Your task to perform on an android device: turn on the 24-hour format for clock Image 0: 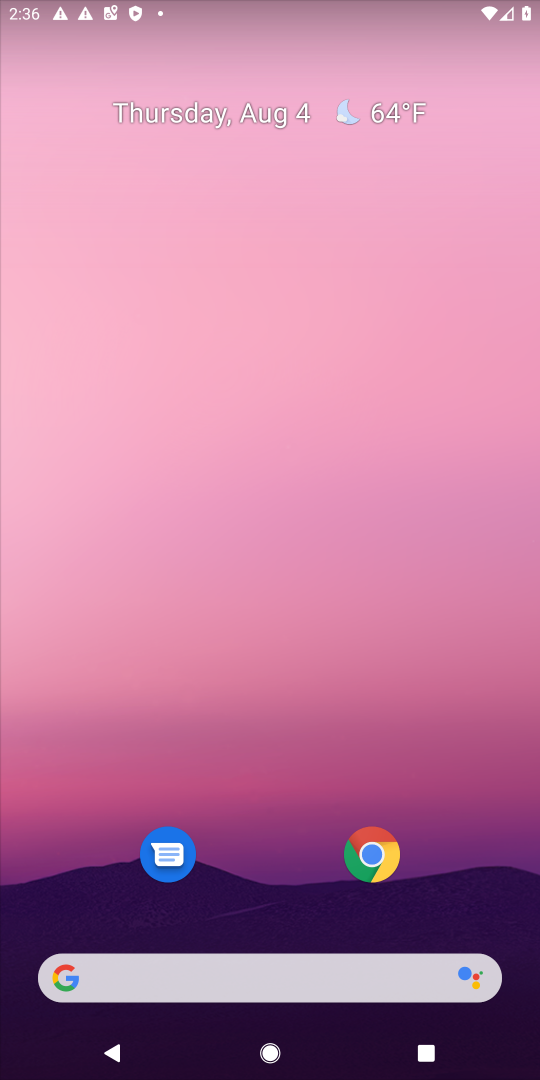
Step 0: drag from (245, 930) to (220, 407)
Your task to perform on an android device: turn on the 24-hour format for clock Image 1: 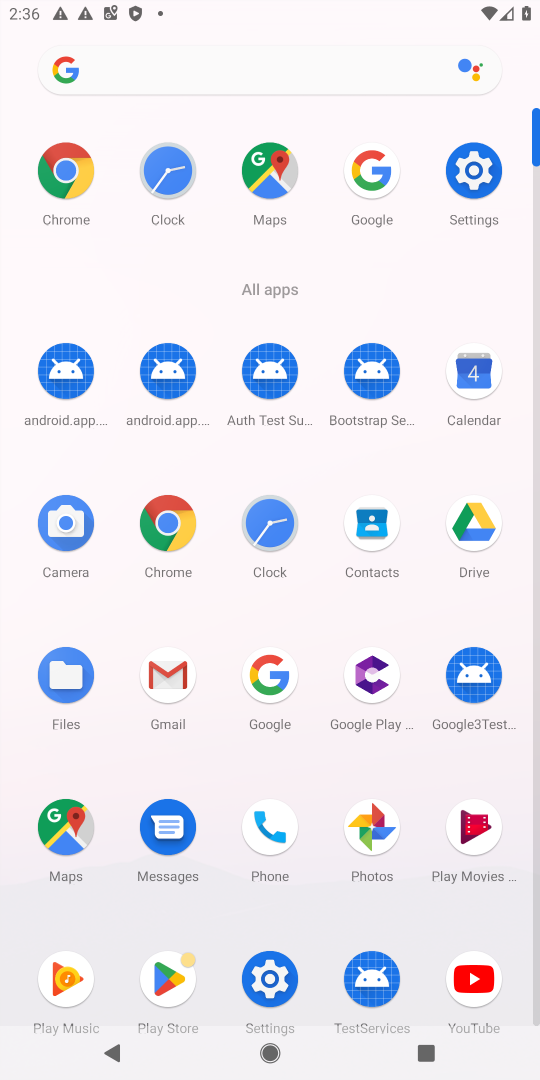
Step 1: click (260, 527)
Your task to perform on an android device: turn on the 24-hour format for clock Image 2: 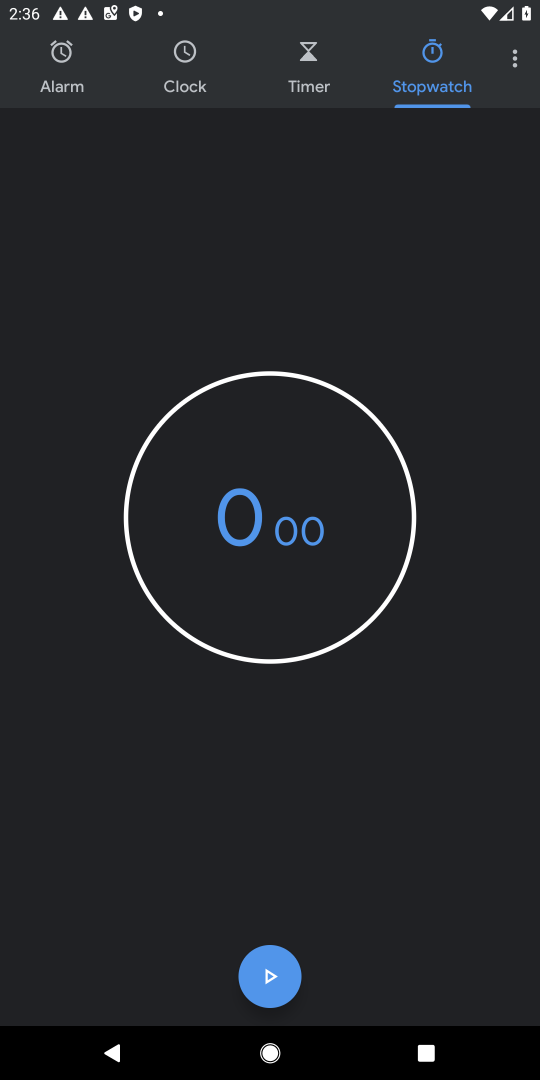
Step 2: click (516, 79)
Your task to perform on an android device: turn on the 24-hour format for clock Image 3: 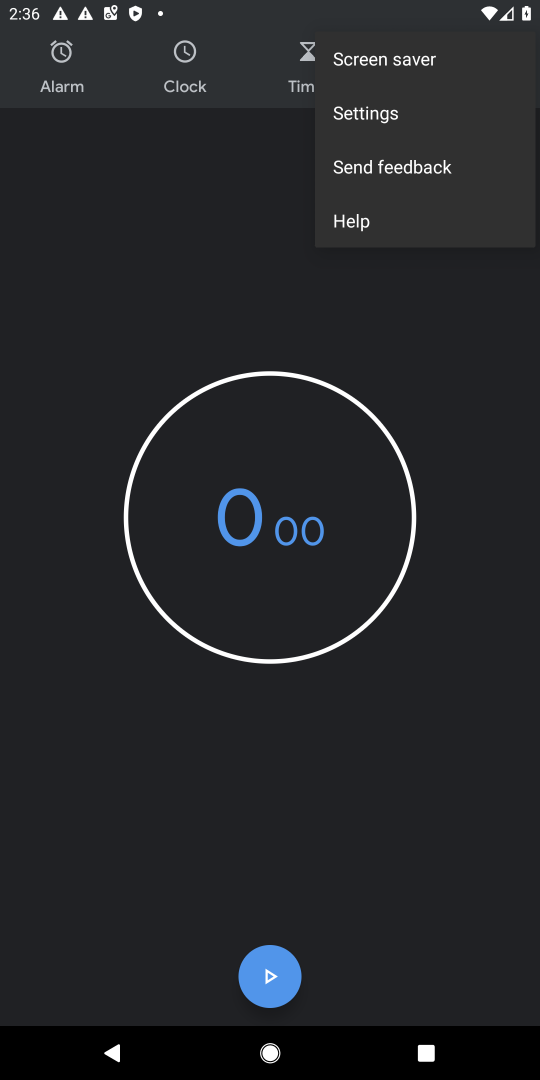
Step 3: click (342, 116)
Your task to perform on an android device: turn on the 24-hour format for clock Image 4: 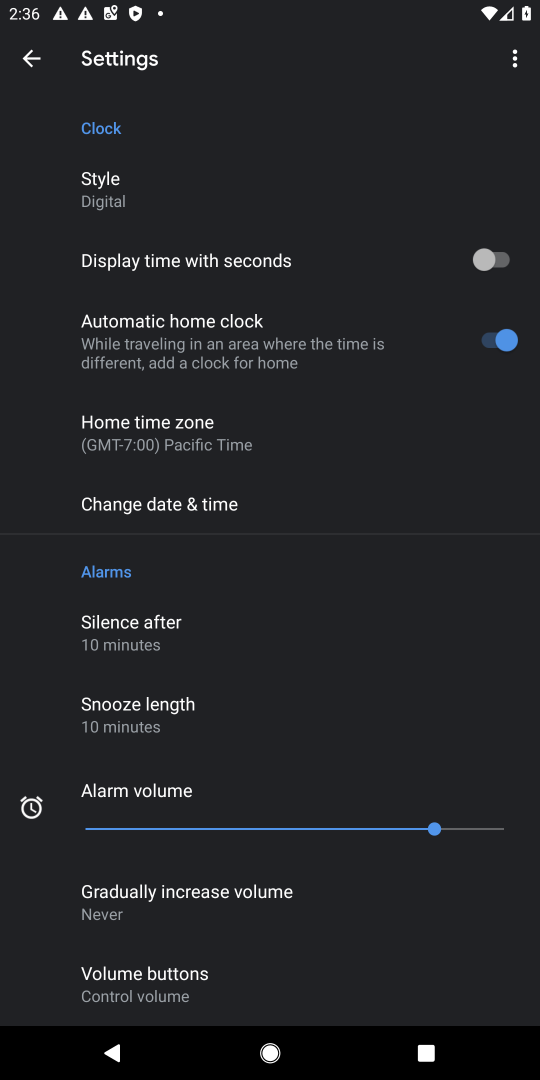
Step 4: click (194, 505)
Your task to perform on an android device: turn on the 24-hour format for clock Image 5: 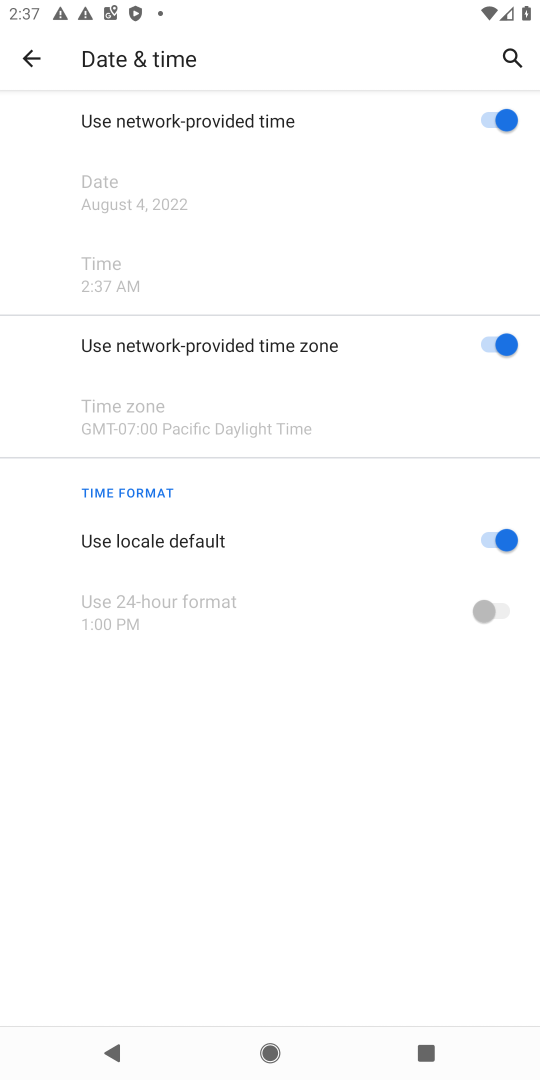
Step 5: task complete